Your task to perform on an android device: check data usage Image 0: 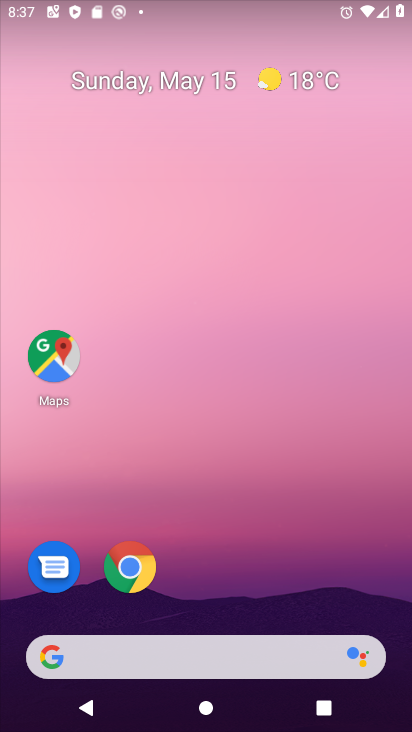
Step 0: drag from (163, 709) to (191, 28)
Your task to perform on an android device: check data usage Image 1: 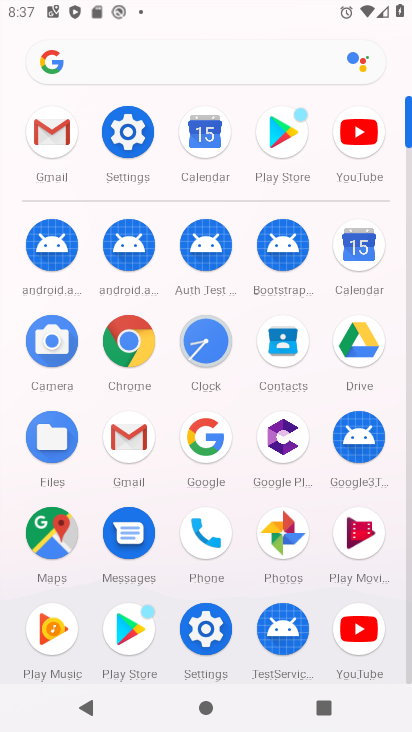
Step 1: click (121, 136)
Your task to perform on an android device: check data usage Image 2: 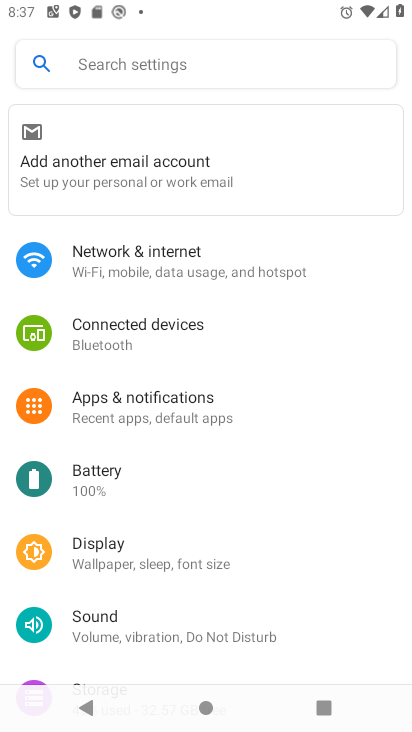
Step 2: click (155, 272)
Your task to perform on an android device: check data usage Image 3: 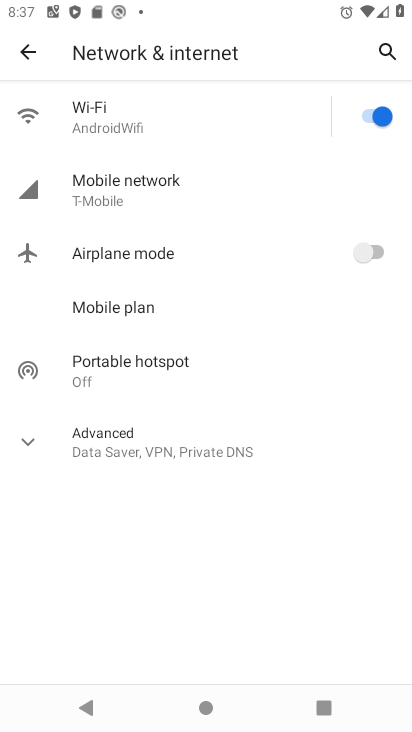
Step 3: click (171, 179)
Your task to perform on an android device: check data usage Image 4: 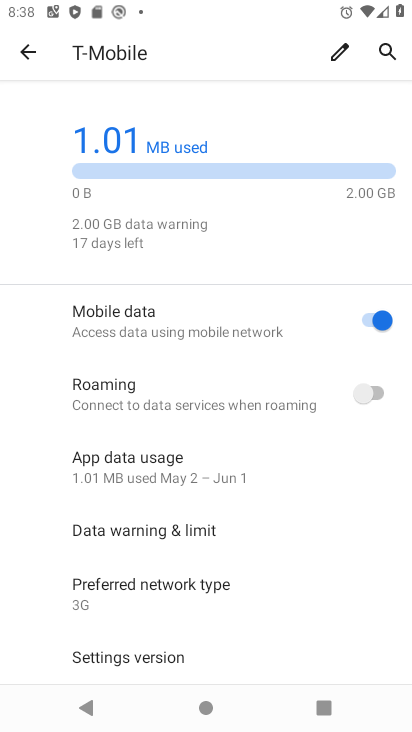
Step 4: task complete